Your task to perform on an android device: Open Amazon Image 0: 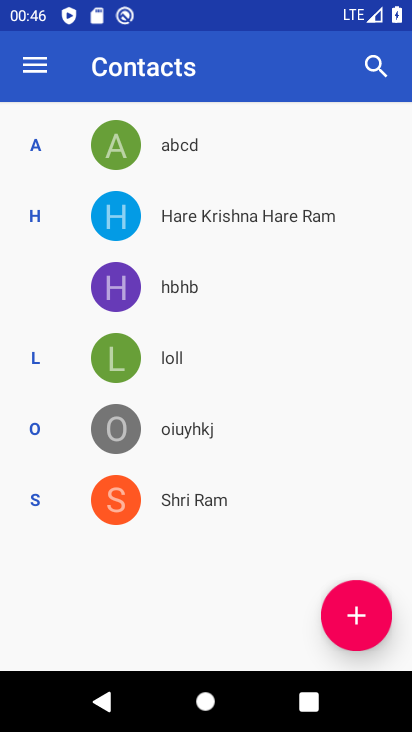
Step 0: task complete